Your task to perform on an android device: open the mobile data screen to see how much data has been used Image 0: 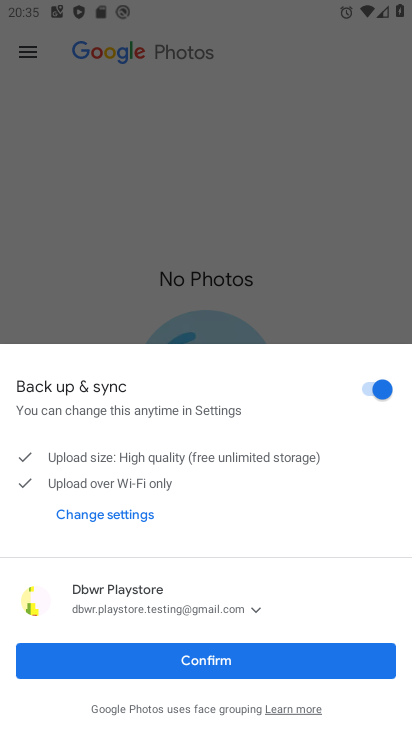
Step 0: press home button
Your task to perform on an android device: open the mobile data screen to see how much data has been used Image 1: 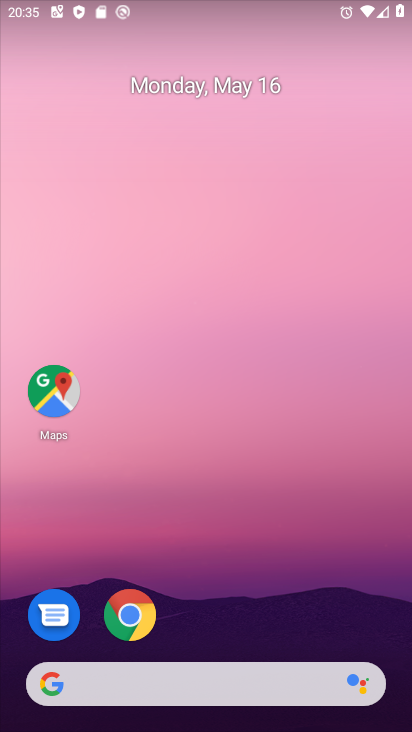
Step 1: drag from (218, 9) to (226, 574)
Your task to perform on an android device: open the mobile data screen to see how much data has been used Image 2: 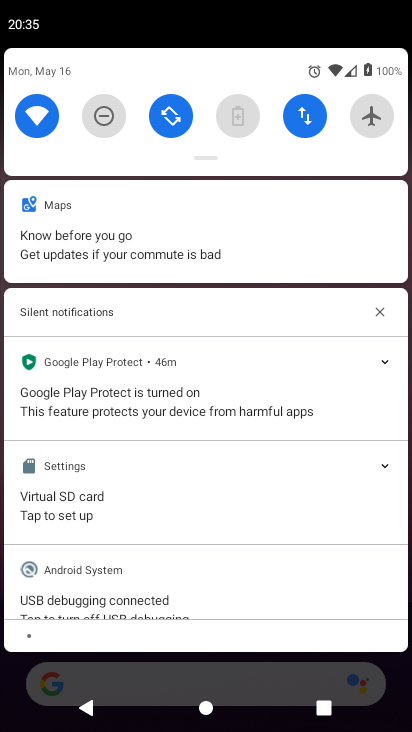
Step 2: click (317, 108)
Your task to perform on an android device: open the mobile data screen to see how much data has been used Image 3: 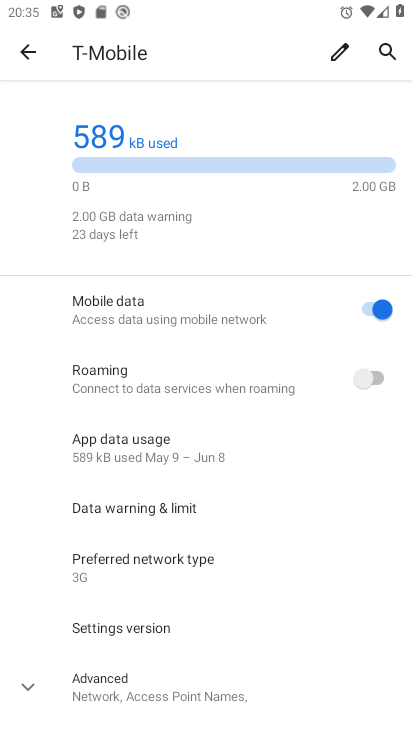
Step 3: task complete